Your task to perform on an android device: turn off data saver in the chrome app Image 0: 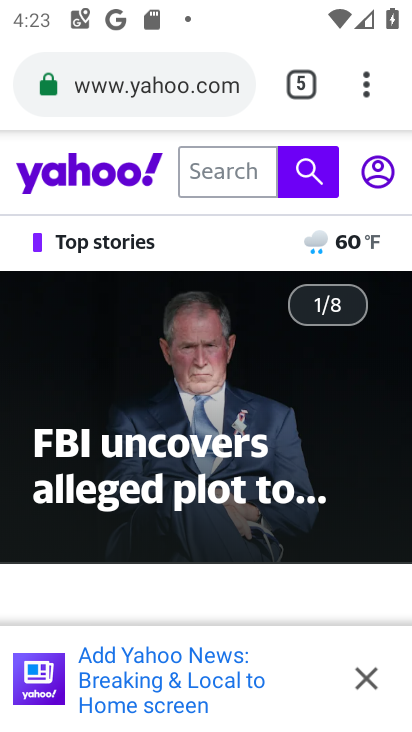
Step 0: click (372, 87)
Your task to perform on an android device: turn off data saver in the chrome app Image 1: 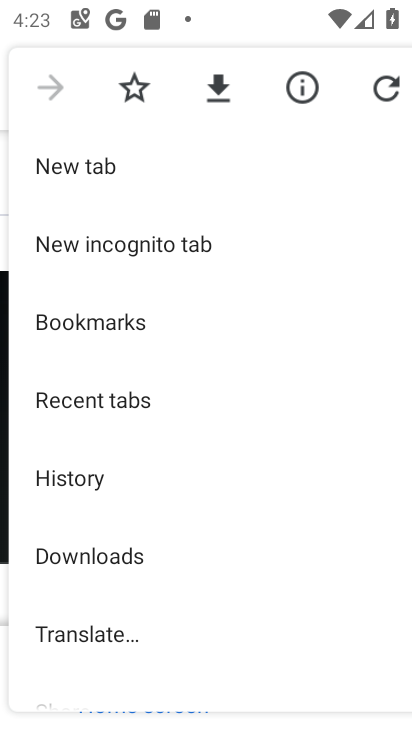
Step 1: drag from (212, 590) to (214, 178)
Your task to perform on an android device: turn off data saver in the chrome app Image 2: 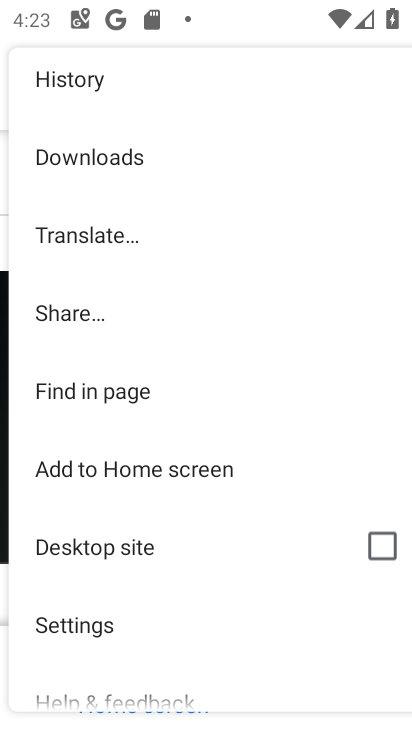
Step 2: click (120, 638)
Your task to perform on an android device: turn off data saver in the chrome app Image 3: 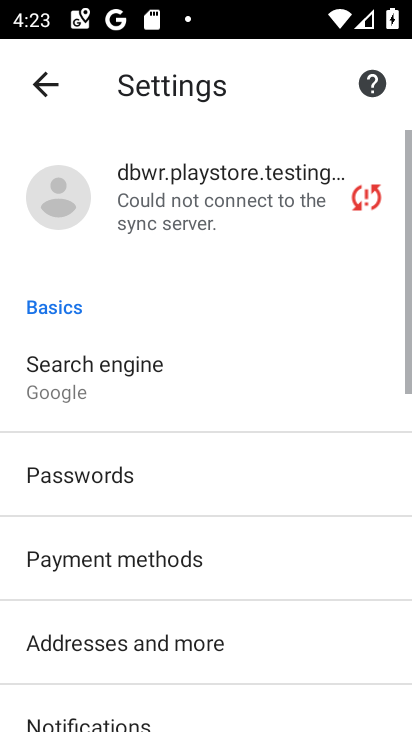
Step 3: drag from (232, 583) to (207, 81)
Your task to perform on an android device: turn off data saver in the chrome app Image 4: 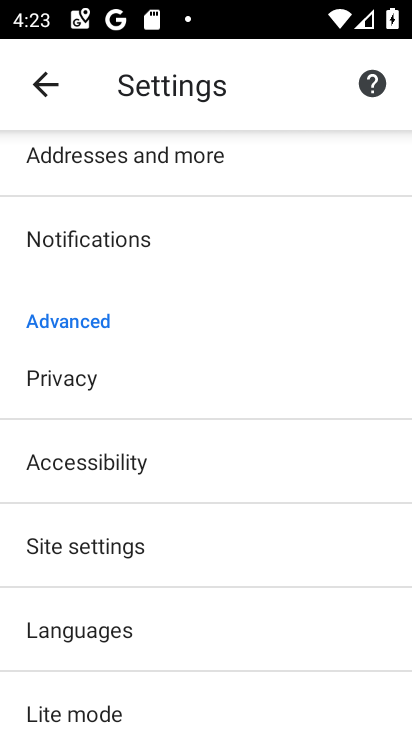
Step 4: click (211, 705)
Your task to perform on an android device: turn off data saver in the chrome app Image 5: 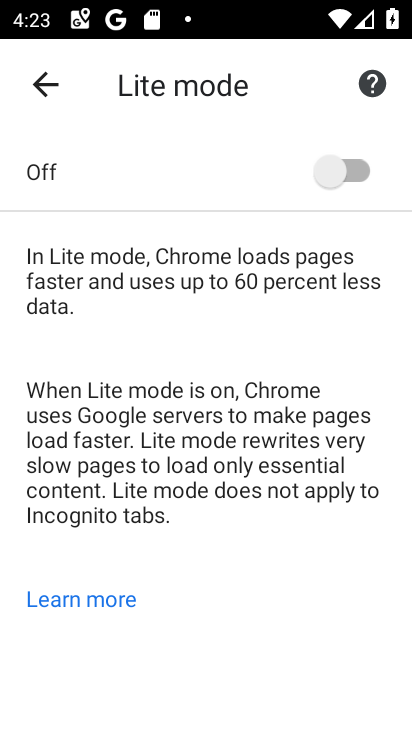
Step 5: task complete